Your task to perform on an android device: open the mobile data screen to see how much data has been used Image 0: 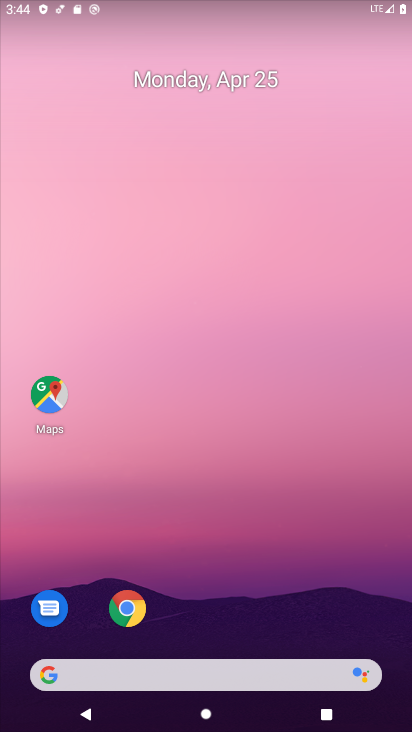
Step 0: drag from (235, 699) to (256, 66)
Your task to perform on an android device: open the mobile data screen to see how much data has been used Image 1: 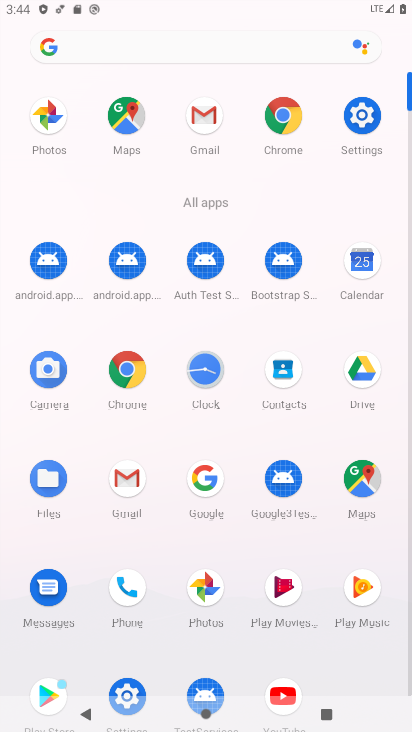
Step 1: click (366, 115)
Your task to perform on an android device: open the mobile data screen to see how much data has been used Image 2: 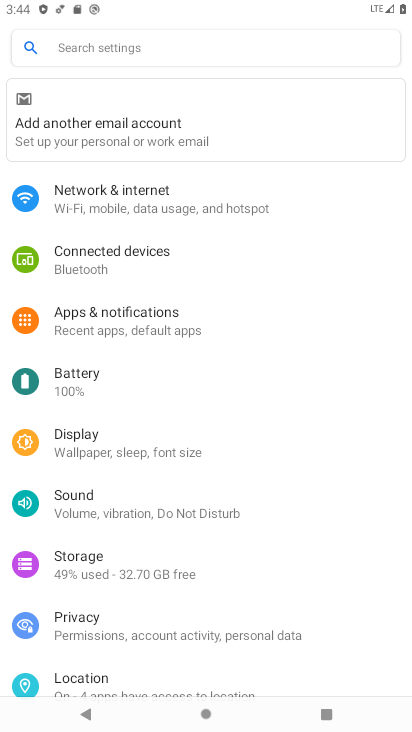
Step 2: click (140, 53)
Your task to perform on an android device: open the mobile data screen to see how much data has been used Image 3: 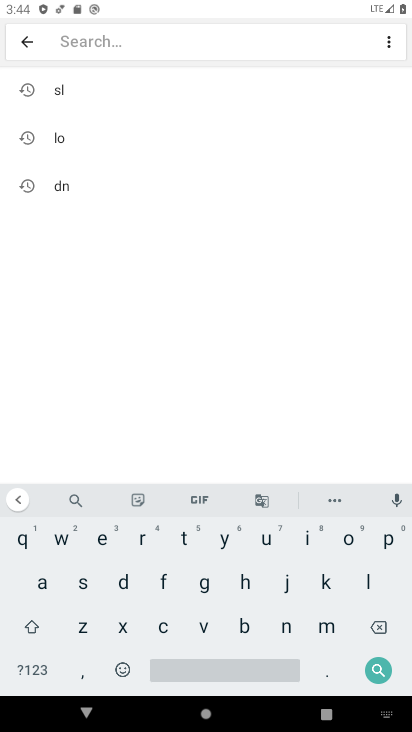
Step 3: click (120, 580)
Your task to perform on an android device: open the mobile data screen to see how much data has been used Image 4: 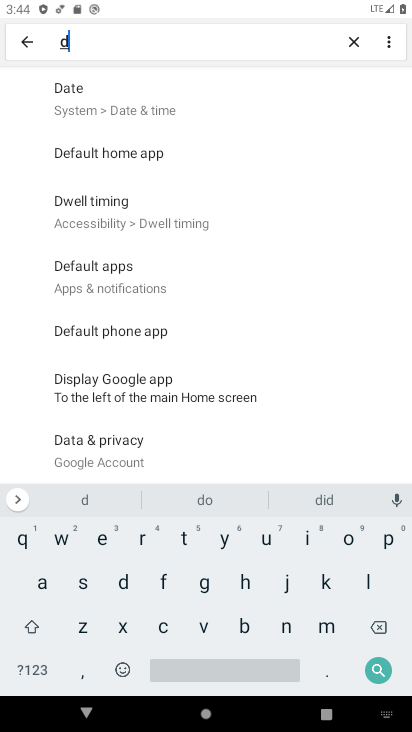
Step 4: click (42, 579)
Your task to perform on an android device: open the mobile data screen to see how much data has been used Image 5: 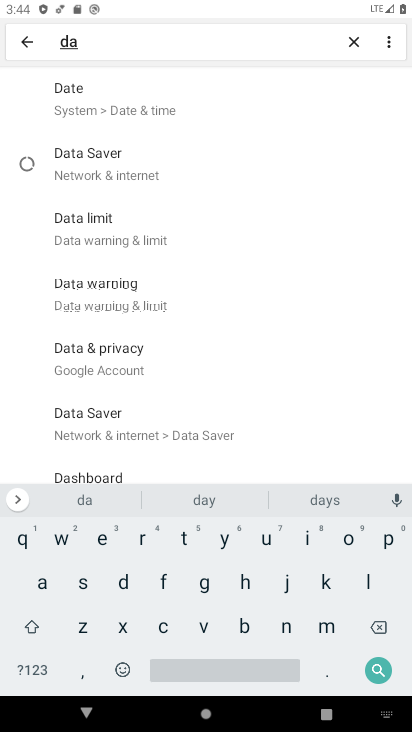
Step 5: click (185, 540)
Your task to perform on an android device: open the mobile data screen to see how much data has been used Image 6: 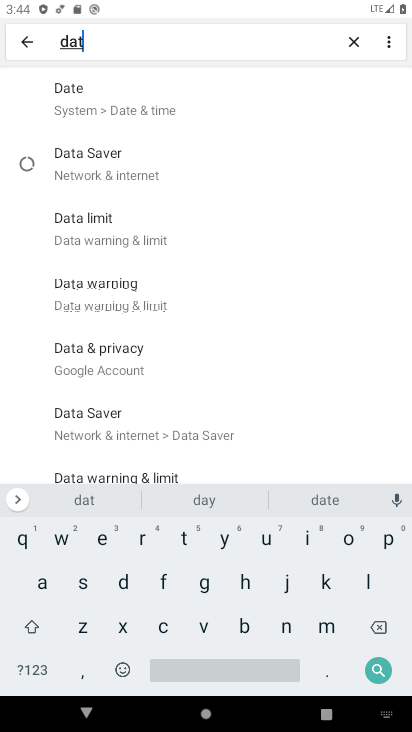
Step 6: click (37, 579)
Your task to perform on an android device: open the mobile data screen to see how much data has been used Image 7: 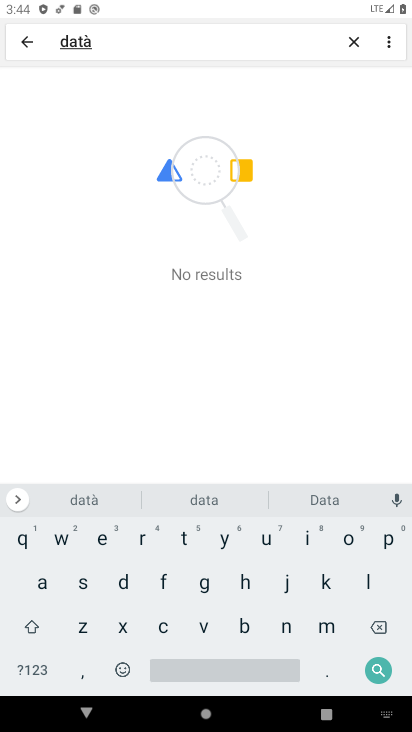
Step 7: click (377, 623)
Your task to perform on an android device: open the mobile data screen to see how much data has been used Image 8: 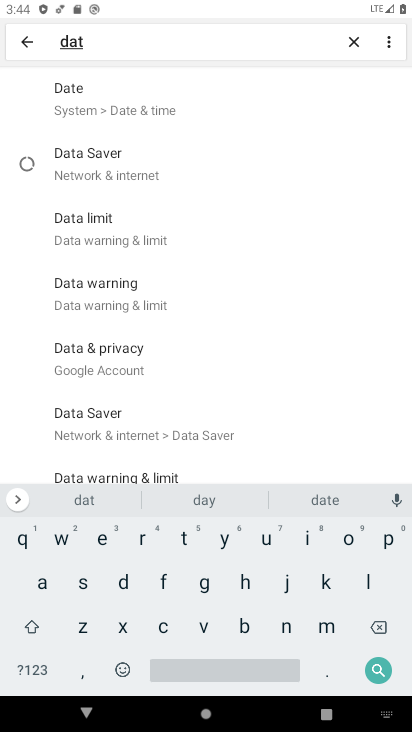
Step 8: click (45, 586)
Your task to perform on an android device: open the mobile data screen to see how much data has been used Image 9: 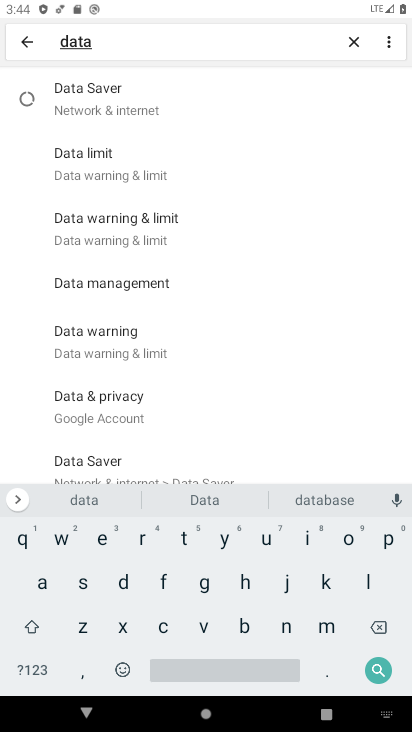
Step 9: click (211, 667)
Your task to perform on an android device: open the mobile data screen to see how much data has been used Image 10: 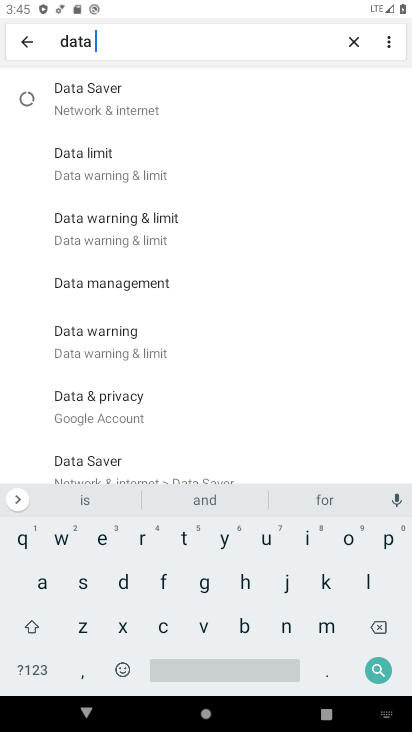
Step 10: click (269, 534)
Your task to perform on an android device: open the mobile data screen to see how much data has been used Image 11: 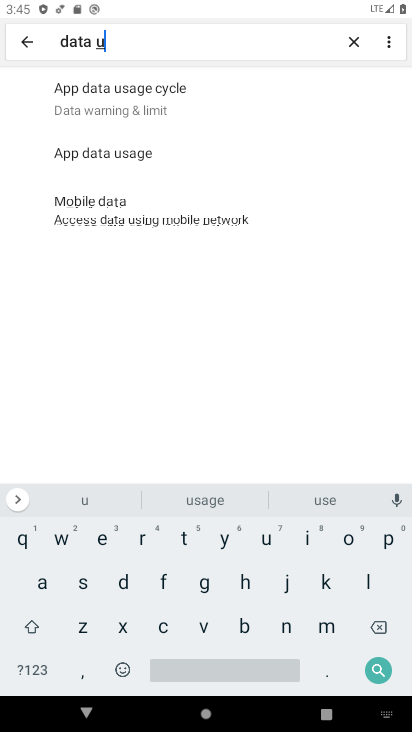
Step 11: click (110, 162)
Your task to perform on an android device: open the mobile data screen to see how much data has been used Image 12: 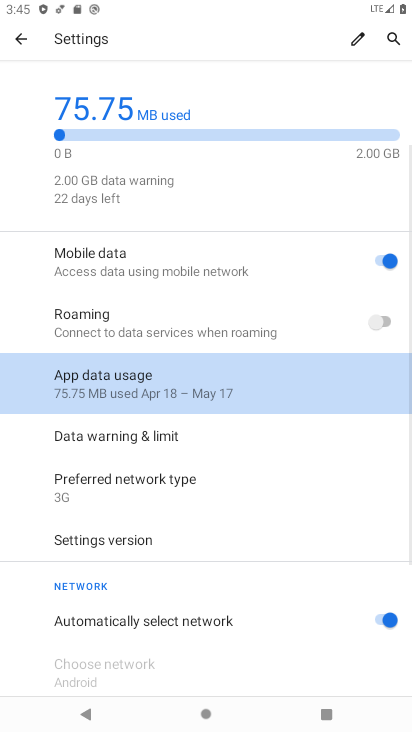
Step 12: click (125, 377)
Your task to perform on an android device: open the mobile data screen to see how much data has been used Image 13: 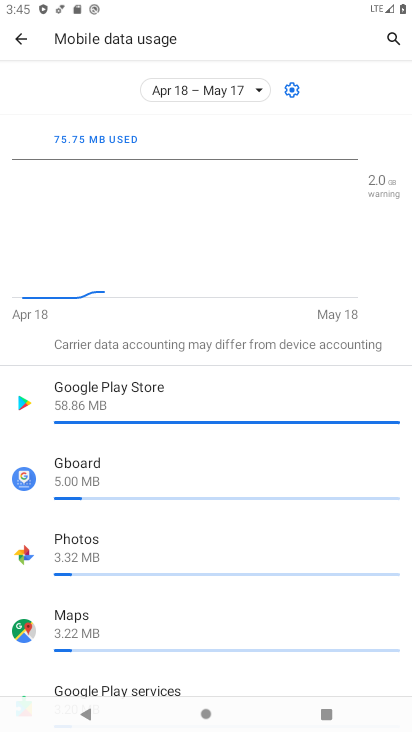
Step 13: task complete